Your task to perform on an android device: toggle improve location accuracy Image 0: 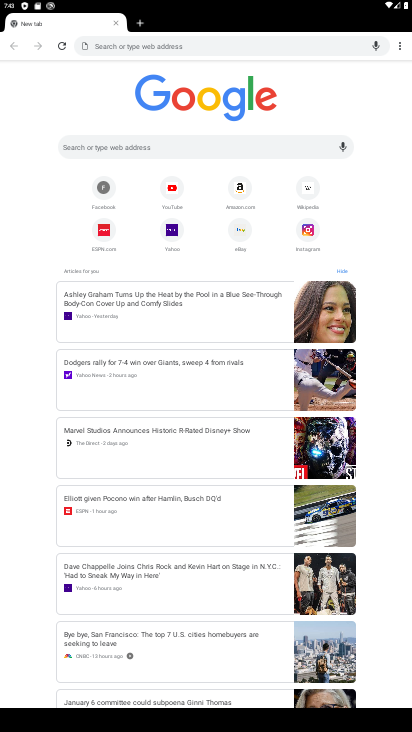
Step 0: press home button
Your task to perform on an android device: toggle improve location accuracy Image 1: 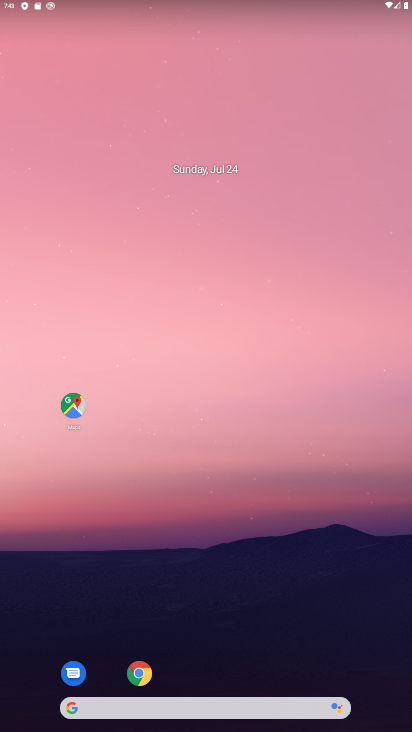
Step 1: drag from (206, 628) to (241, 28)
Your task to perform on an android device: toggle improve location accuracy Image 2: 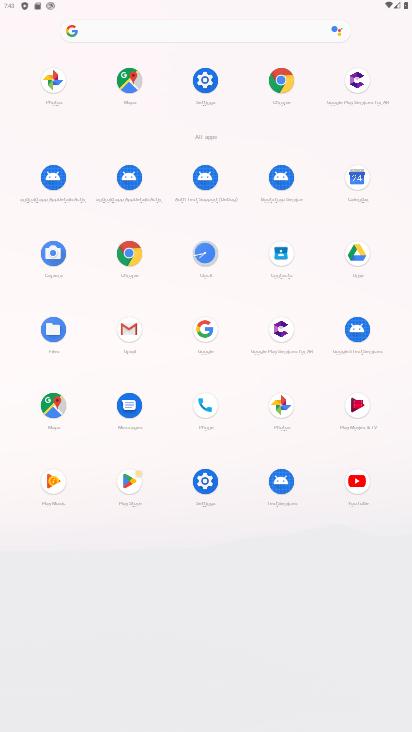
Step 2: click (199, 87)
Your task to perform on an android device: toggle improve location accuracy Image 3: 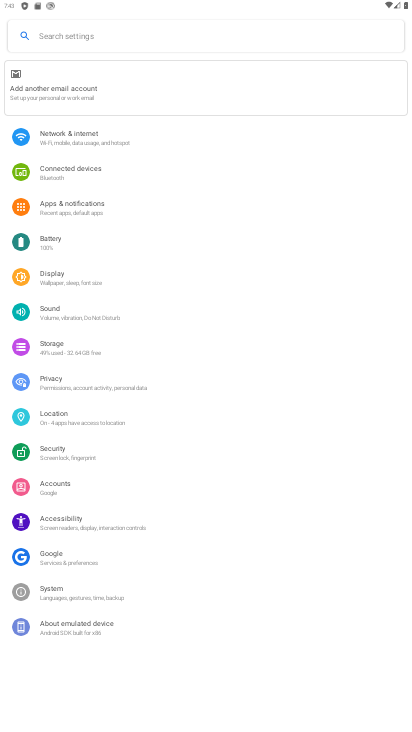
Step 3: click (49, 413)
Your task to perform on an android device: toggle improve location accuracy Image 4: 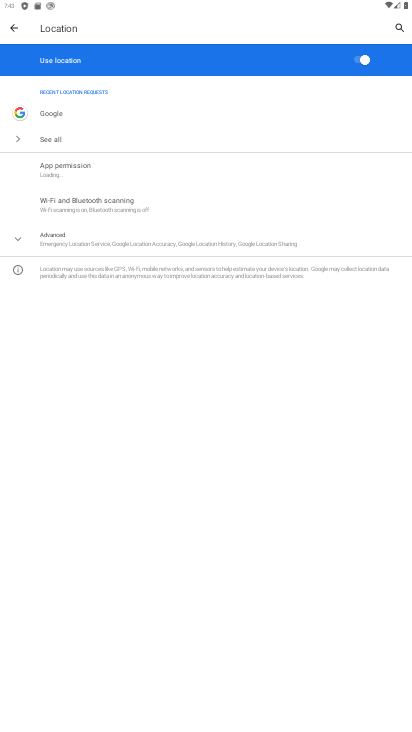
Step 4: click (78, 247)
Your task to perform on an android device: toggle improve location accuracy Image 5: 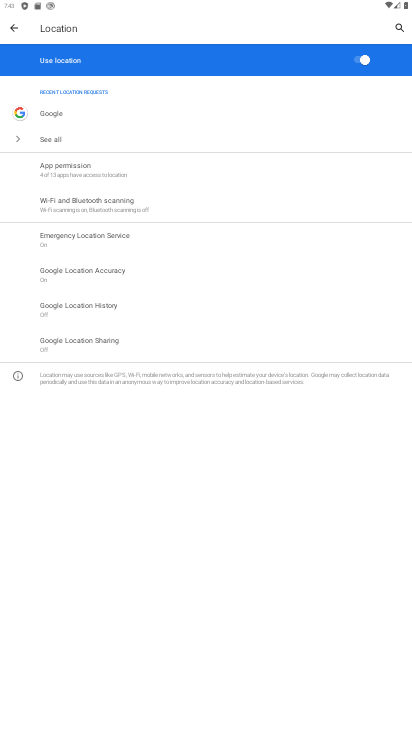
Step 5: click (88, 262)
Your task to perform on an android device: toggle improve location accuracy Image 6: 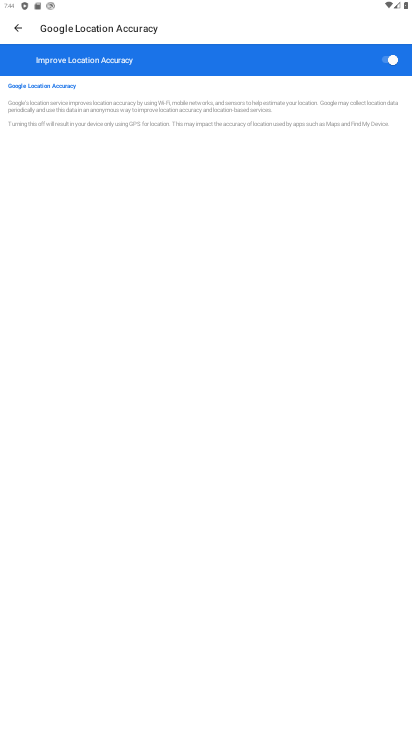
Step 6: click (393, 62)
Your task to perform on an android device: toggle improve location accuracy Image 7: 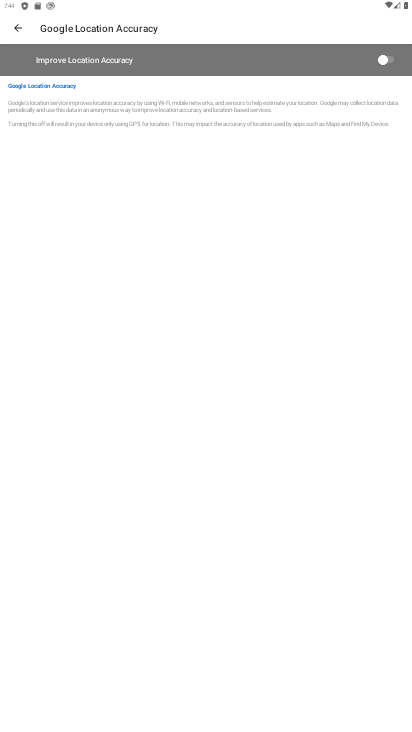
Step 7: task complete